Your task to perform on an android device: When is my next meeting? Image 0: 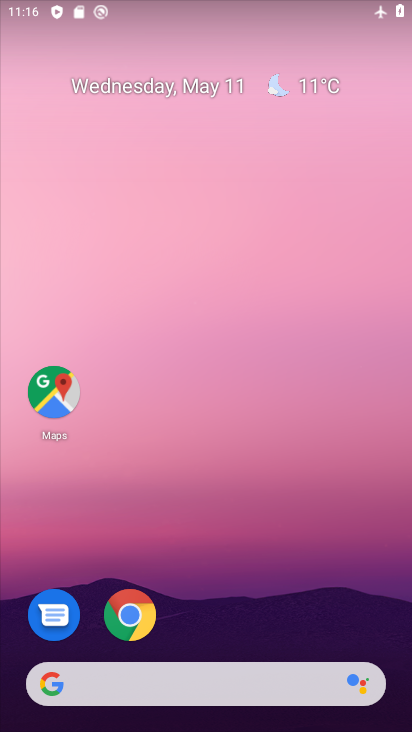
Step 0: drag from (327, 571) to (346, 63)
Your task to perform on an android device: When is my next meeting? Image 1: 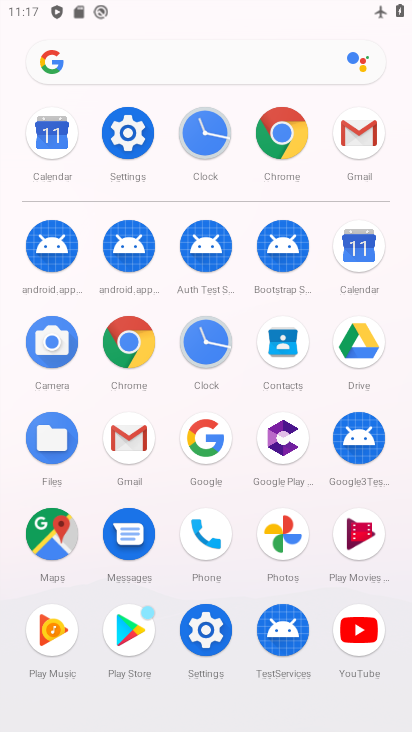
Step 1: click (57, 129)
Your task to perform on an android device: When is my next meeting? Image 2: 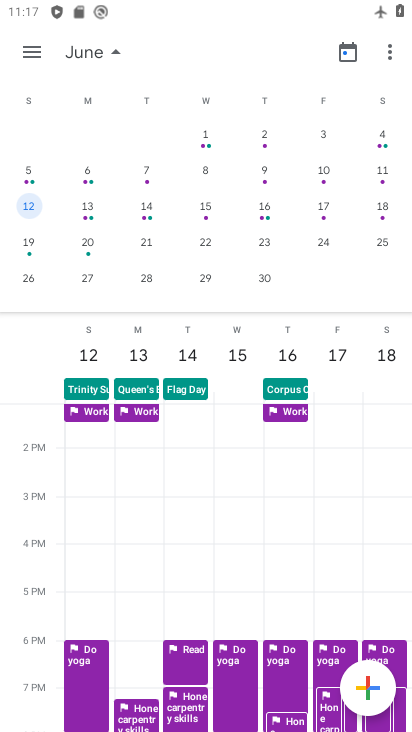
Step 2: drag from (20, 177) to (383, 227)
Your task to perform on an android device: When is my next meeting? Image 3: 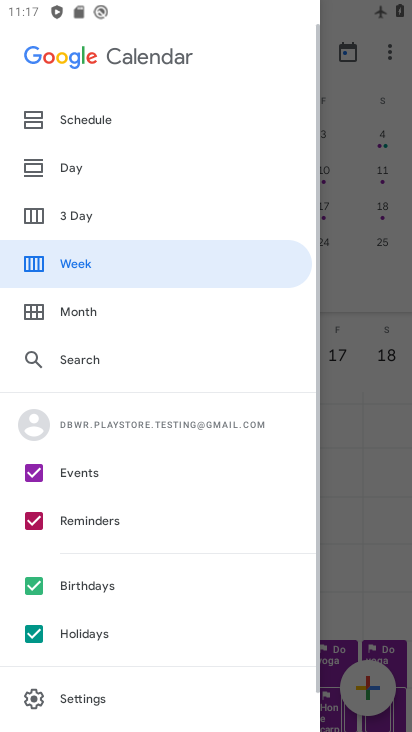
Step 3: drag from (350, 229) to (0, 224)
Your task to perform on an android device: When is my next meeting? Image 4: 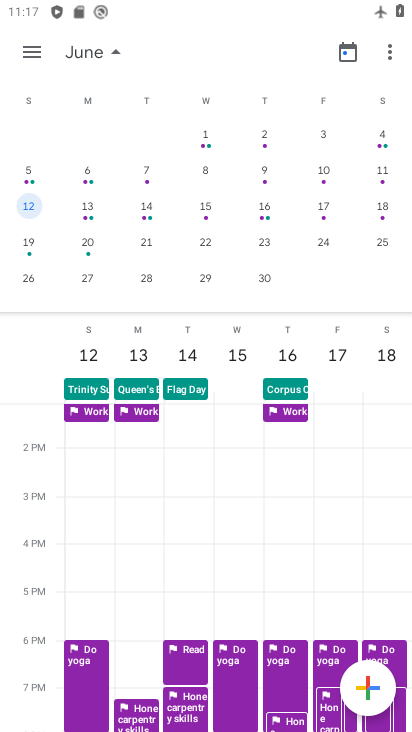
Step 4: drag from (69, 196) to (352, 237)
Your task to perform on an android device: When is my next meeting? Image 5: 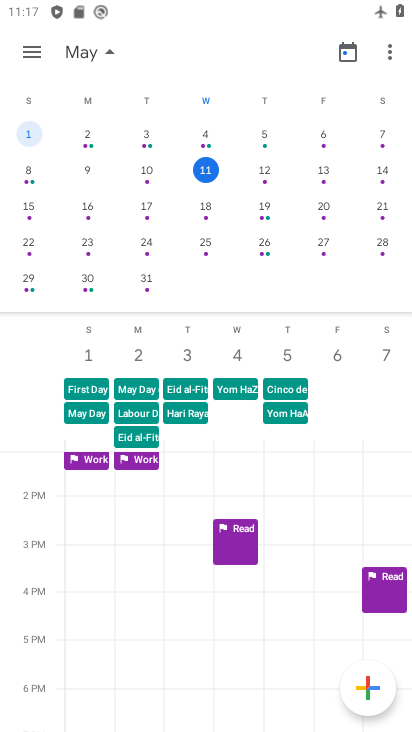
Step 5: click (197, 168)
Your task to perform on an android device: When is my next meeting? Image 6: 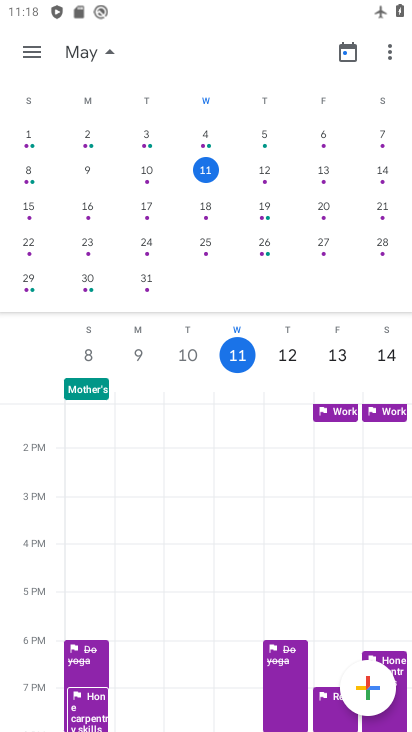
Step 6: click (29, 43)
Your task to perform on an android device: When is my next meeting? Image 7: 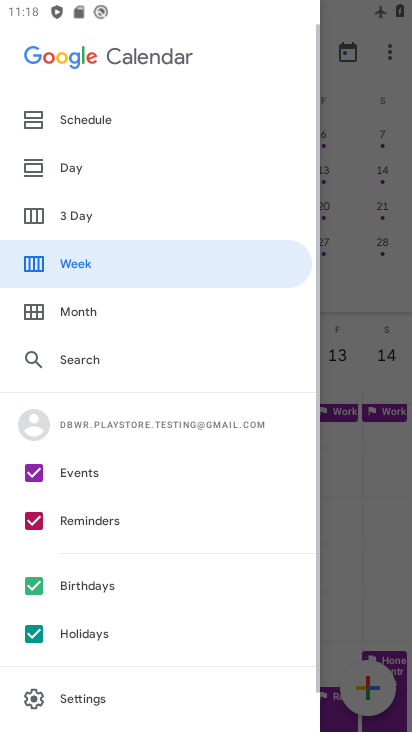
Step 7: click (91, 164)
Your task to perform on an android device: When is my next meeting? Image 8: 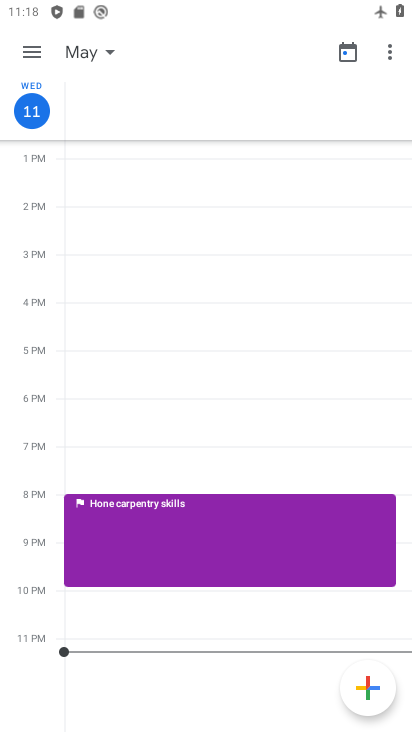
Step 8: drag from (158, 315) to (214, 94)
Your task to perform on an android device: When is my next meeting? Image 9: 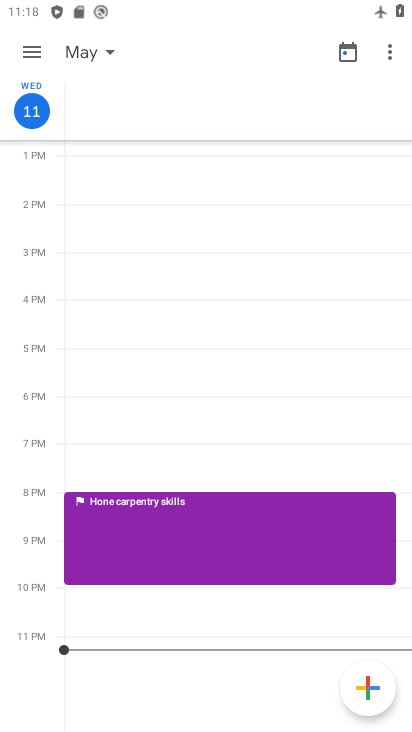
Step 9: click (33, 44)
Your task to perform on an android device: When is my next meeting? Image 10: 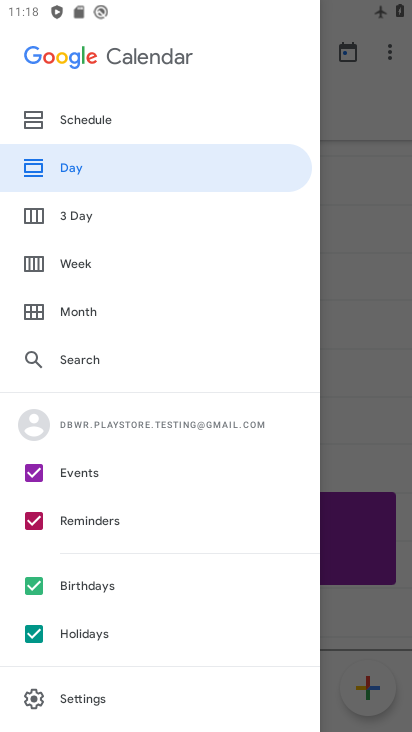
Step 10: click (76, 213)
Your task to perform on an android device: When is my next meeting? Image 11: 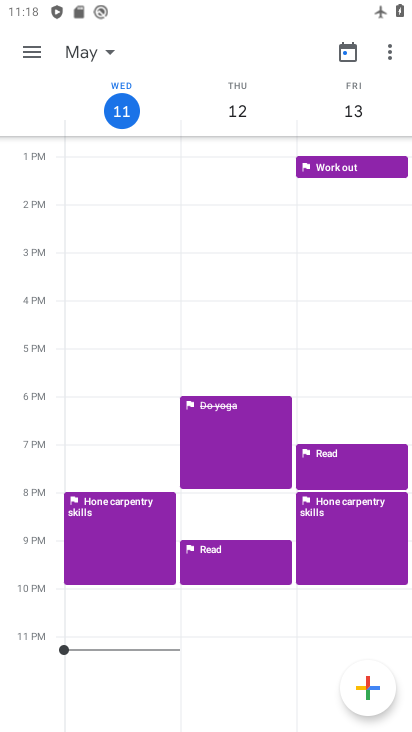
Step 11: task complete